Your task to perform on an android device: change the clock style Image 0: 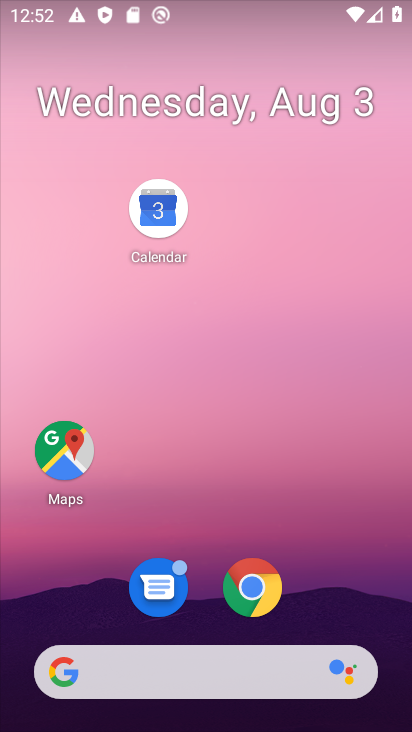
Step 0: drag from (357, 597) to (357, 159)
Your task to perform on an android device: change the clock style Image 1: 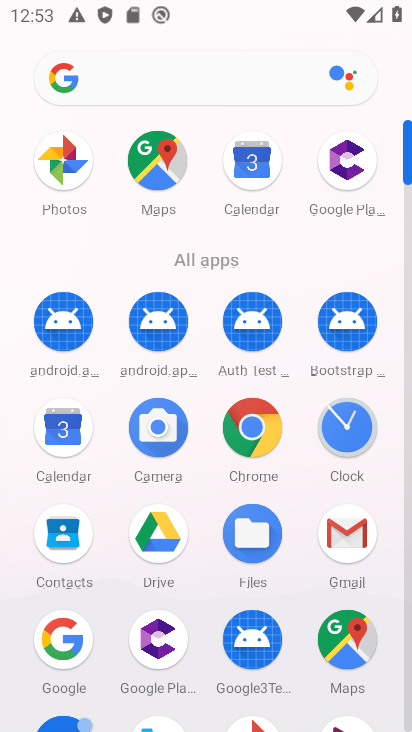
Step 1: drag from (350, 424) to (83, 244)
Your task to perform on an android device: change the clock style Image 2: 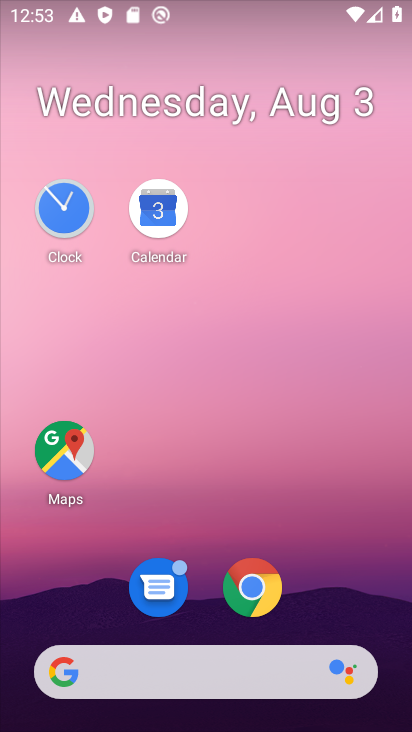
Step 2: click (73, 218)
Your task to perform on an android device: change the clock style Image 3: 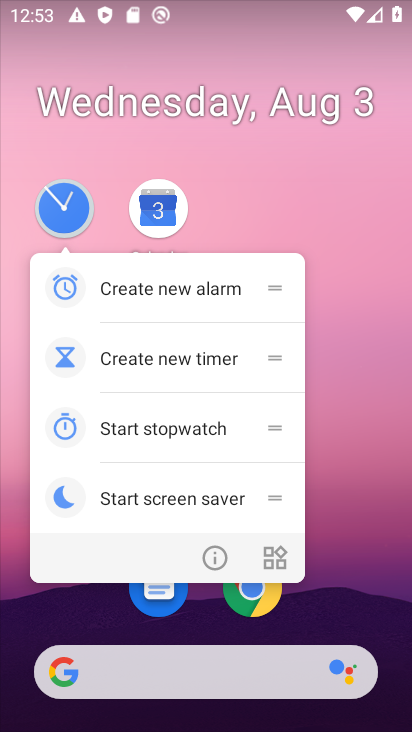
Step 3: click (73, 218)
Your task to perform on an android device: change the clock style Image 4: 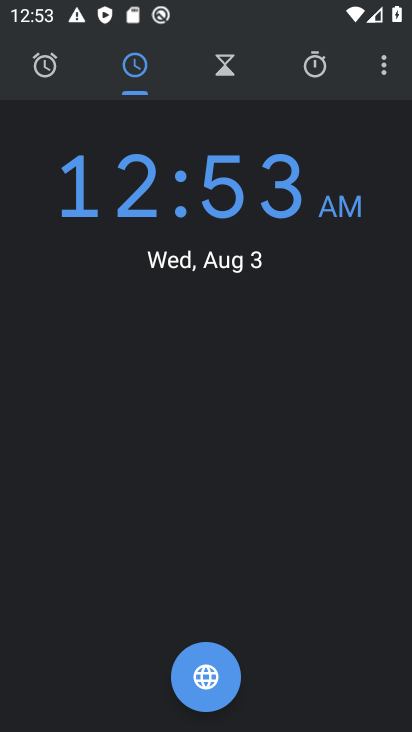
Step 4: click (377, 63)
Your task to perform on an android device: change the clock style Image 5: 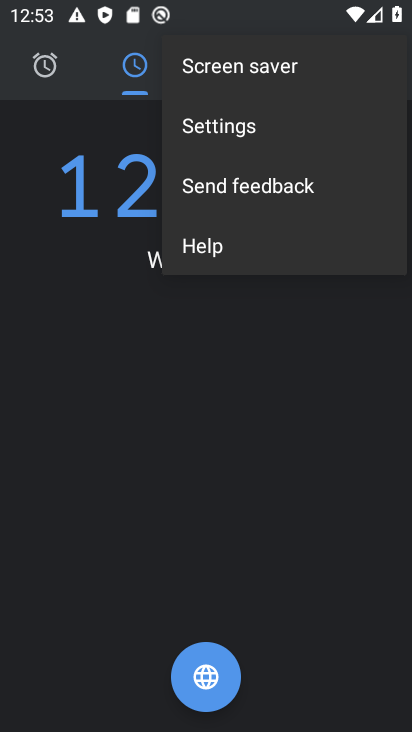
Step 5: click (277, 125)
Your task to perform on an android device: change the clock style Image 6: 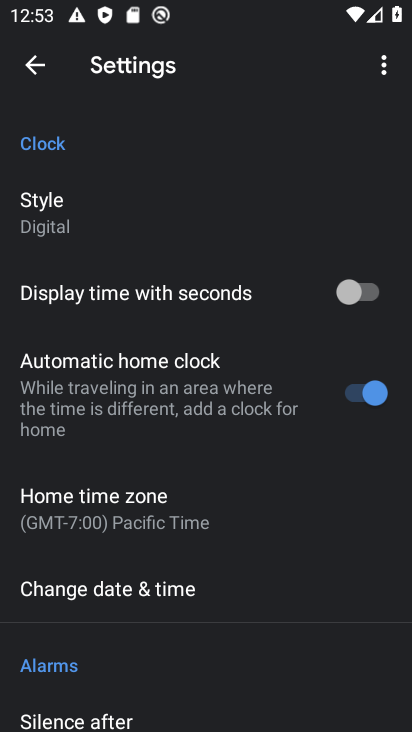
Step 6: click (140, 200)
Your task to perform on an android device: change the clock style Image 7: 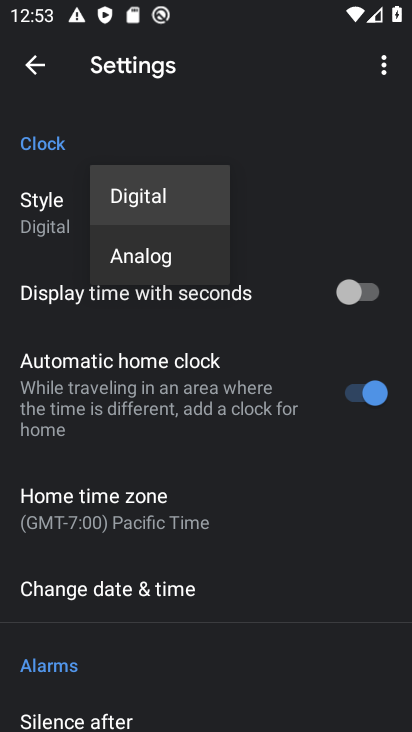
Step 7: click (133, 254)
Your task to perform on an android device: change the clock style Image 8: 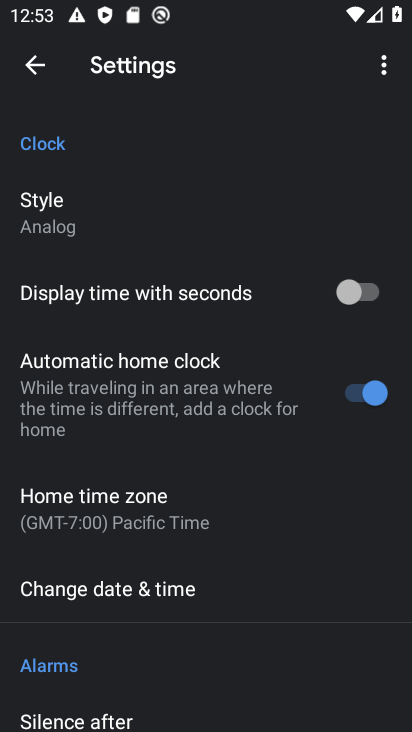
Step 8: task complete